Your task to perform on an android device: Open Reddit.com Image 0: 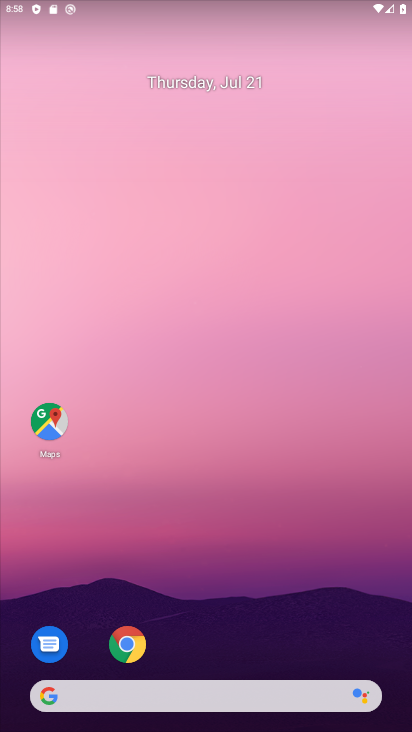
Step 0: drag from (228, 664) to (244, 115)
Your task to perform on an android device: Open Reddit.com Image 1: 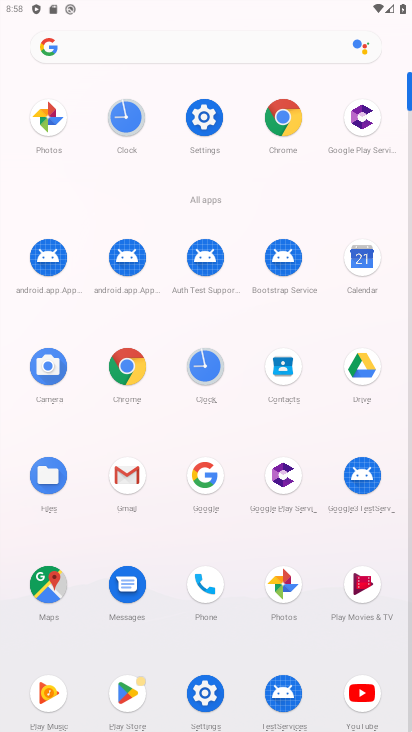
Step 1: click (272, 94)
Your task to perform on an android device: Open Reddit.com Image 2: 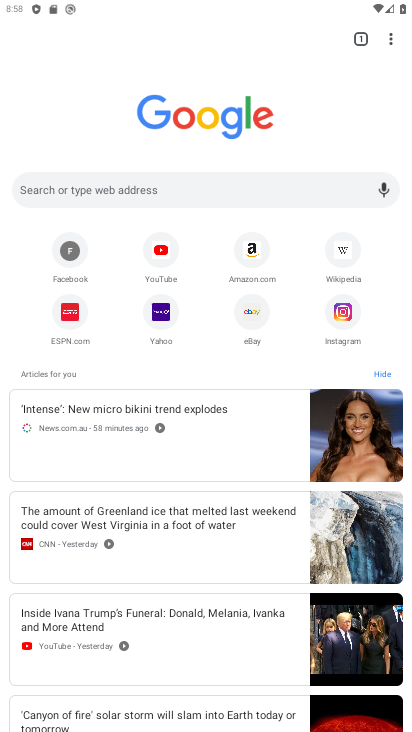
Step 2: click (159, 180)
Your task to perform on an android device: Open Reddit.com Image 3: 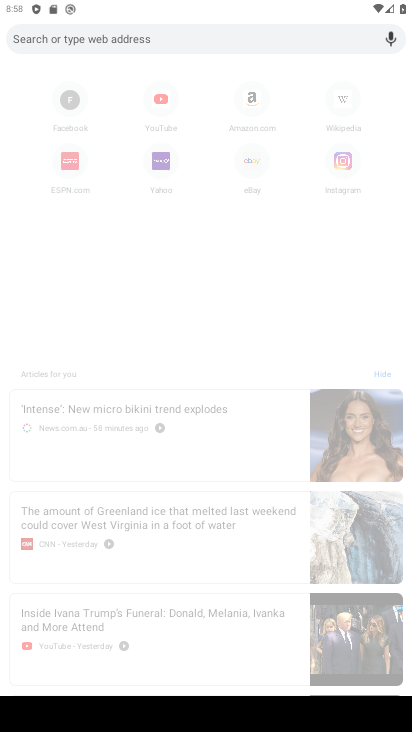
Step 3: type " Reddit.com"
Your task to perform on an android device: Open Reddit.com Image 4: 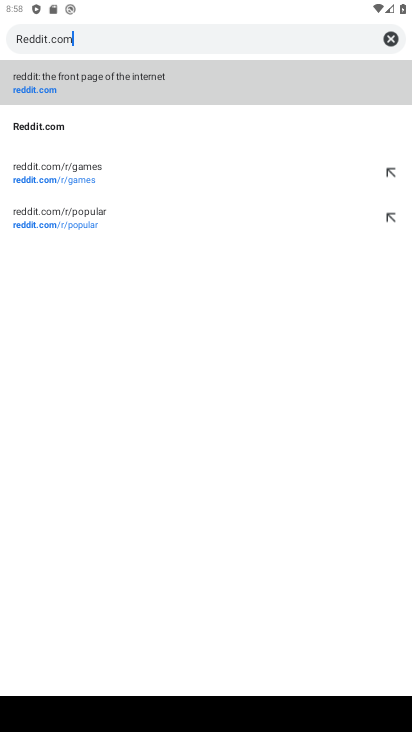
Step 4: click (63, 80)
Your task to perform on an android device: Open Reddit.com Image 5: 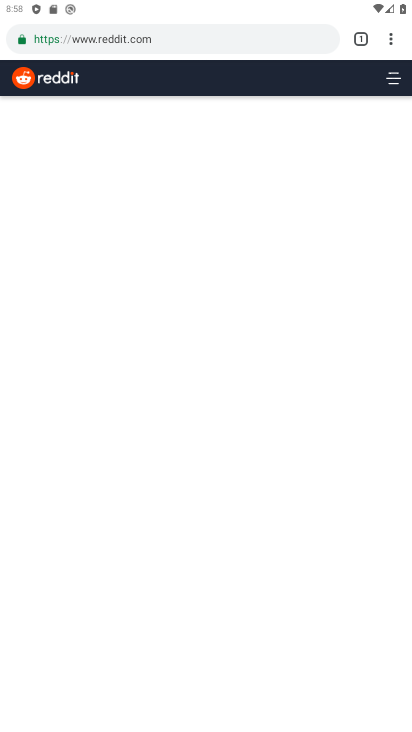
Step 5: task complete